Your task to perform on an android device: check battery use Image 0: 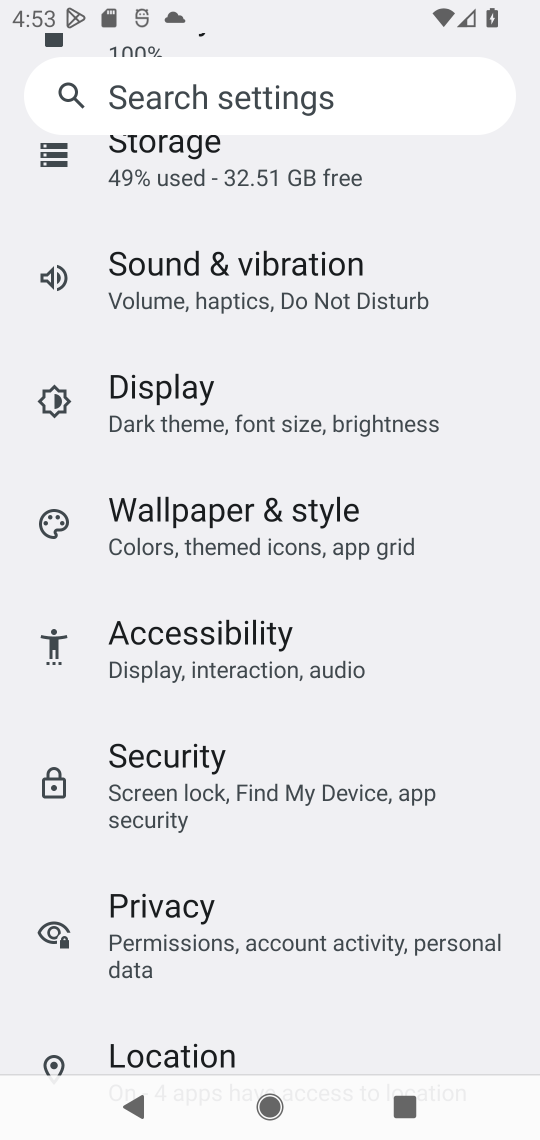
Step 0: drag from (290, 812) to (378, 410)
Your task to perform on an android device: check battery use Image 1: 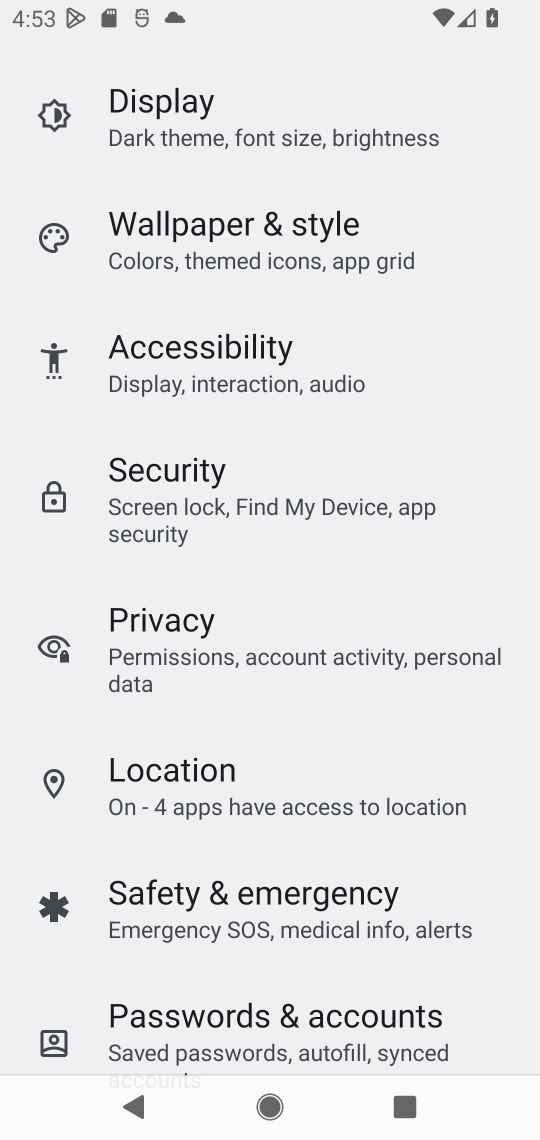
Step 1: task complete